Your task to perform on an android device: Open accessibility settings Image 0: 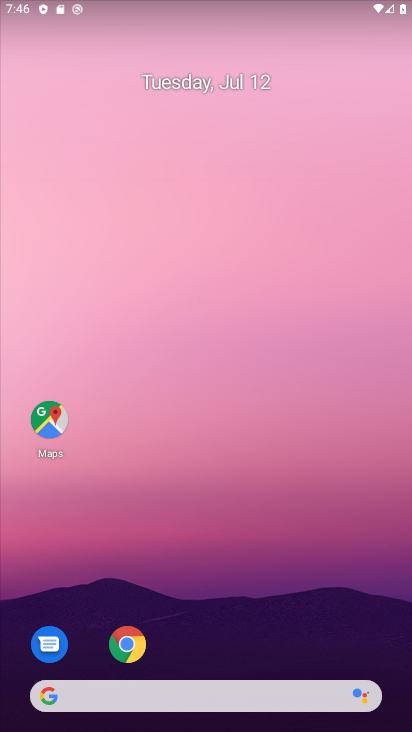
Step 0: drag from (223, 647) to (247, 0)
Your task to perform on an android device: Open accessibility settings Image 1: 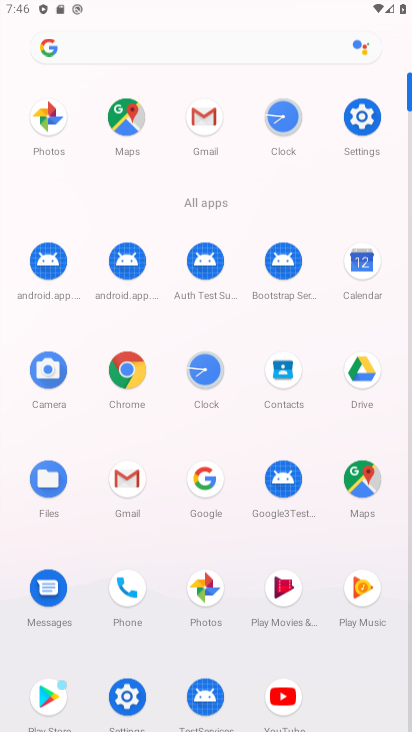
Step 1: click (361, 135)
Your task to perform on an android device: Open accessibility settings Image 2: 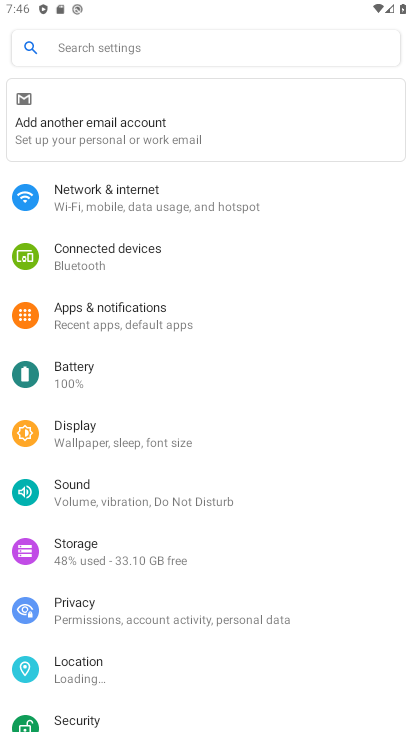
Step 2: drag from (124, 660) to (149, 133)
Your task to perform on an android device: Open accessibility settings Image 3: 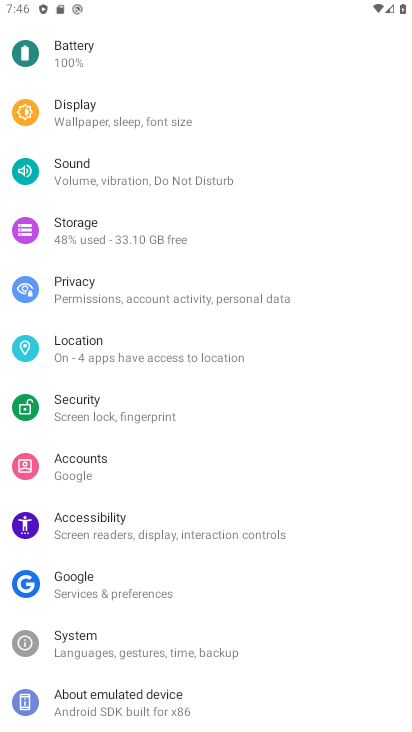
Step 3: click (117, 526)
Your task to perform on an android device: Open accessibility settings Image 4: 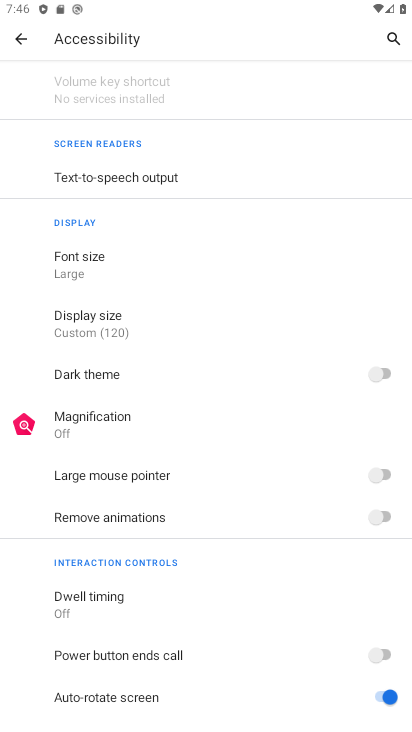
Step 4: task complete